Your task to perform on an android device: check android version Image 0: 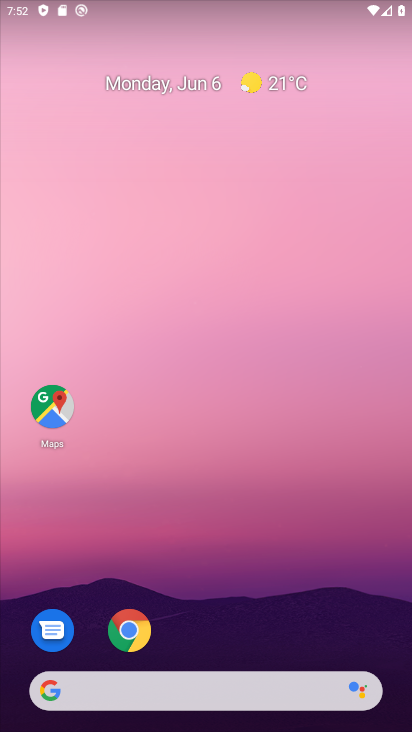
Step 0: drag from (253, 593) to (198, 154)
Your task to perform on an android device: check android version Image 1: 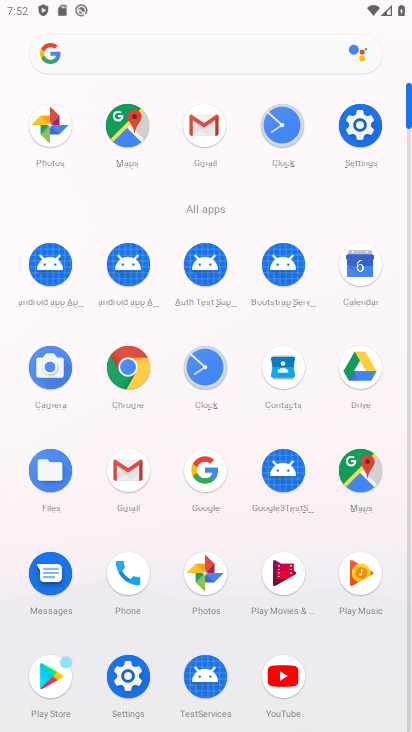
Step 1: click (361, 122)
Your task to perform on an android device: check android version Image 2: 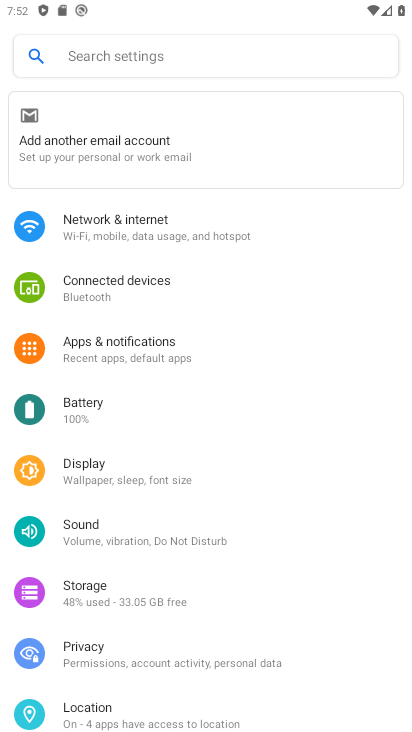
Step 2: drag from (119, 620) to (218, 479)
Your task to perform on an android device: check android version Image 3: 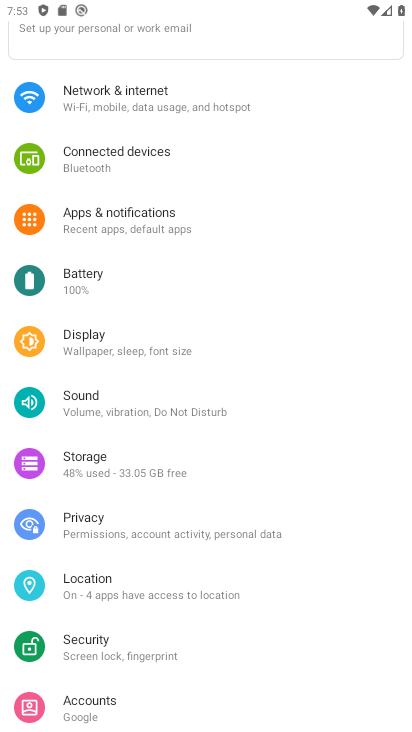
Step 3: drag from (134, 620) to (248, 492)
Your task to perform on an android device: check android version Image 4: 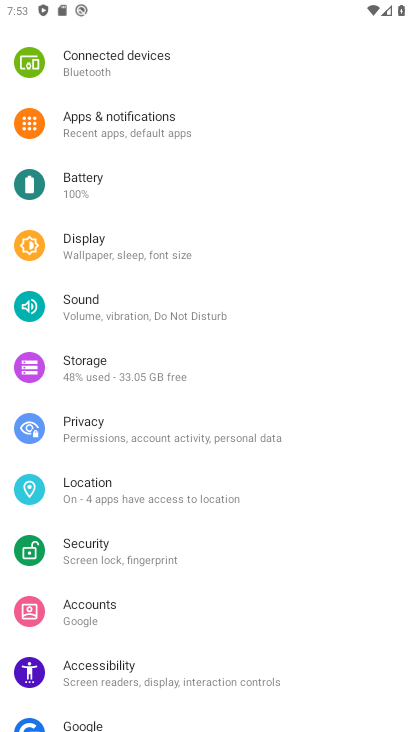
Step 4: drag from (122, 639) to (257, 483)
Your task to perform on an android device: check android version Image 5: 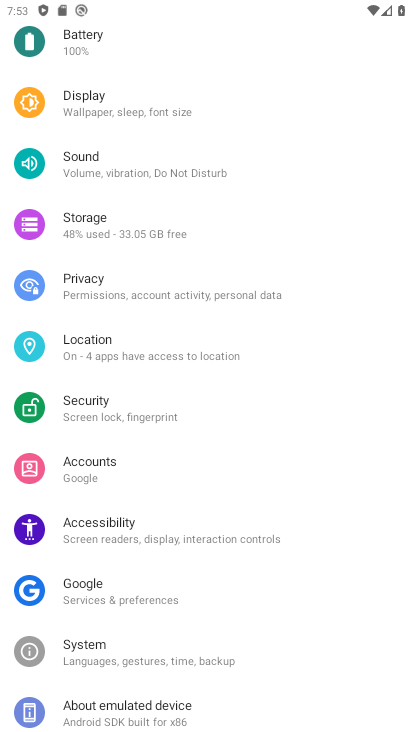
Step 5: drag from (160, 627) to (274, 503)
Your task to perform on an android device: check android version Image 6: 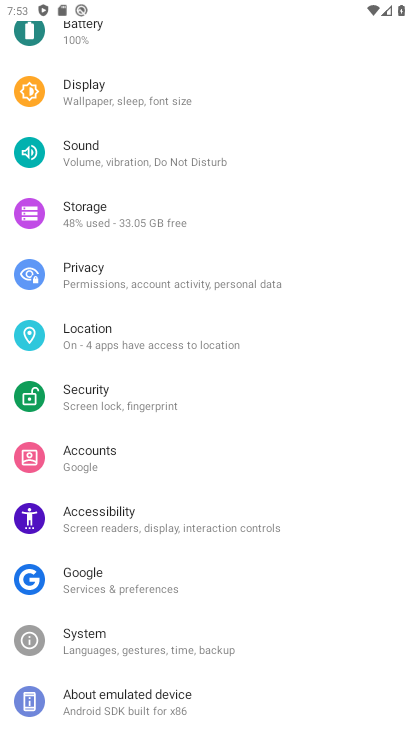
Step 6: click (123, 695)
Your task to perform on an android device: check android version Image 7: 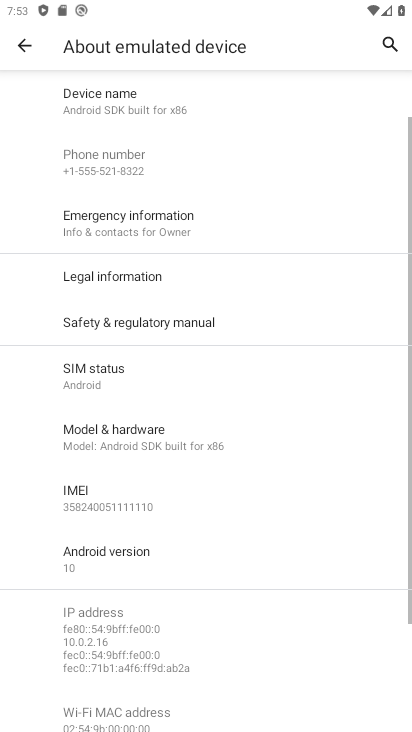
Step 7: click (130, 555)
Your task to perform on an android device: check android version Image 8: 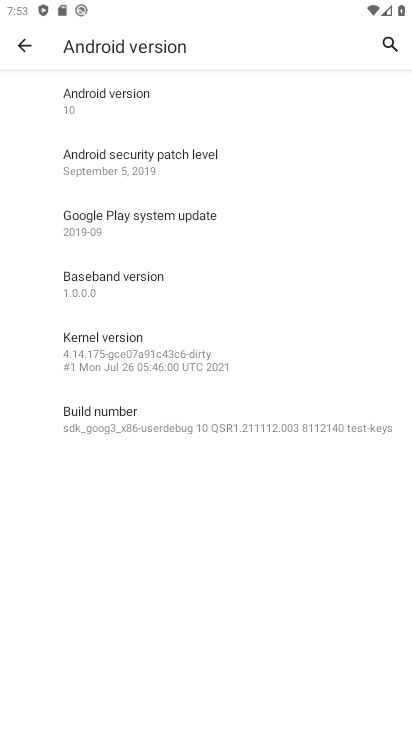
Step 8: task complete